Your task to perform on an android device: Go to eBay Image 0: 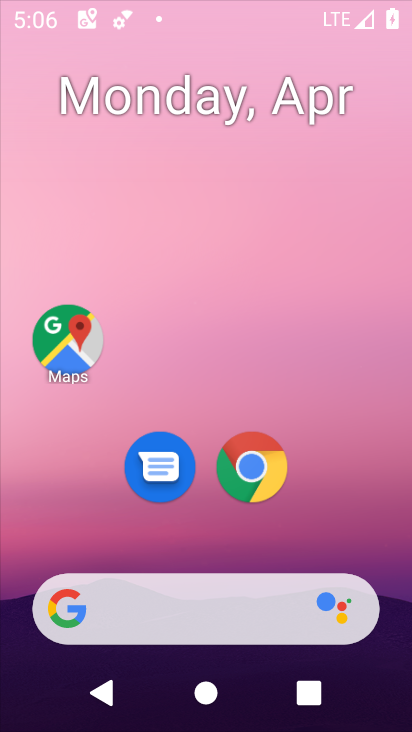
Step 0: click (280, 2)
Your task to perform on an android device: Go to eBay Image 1: 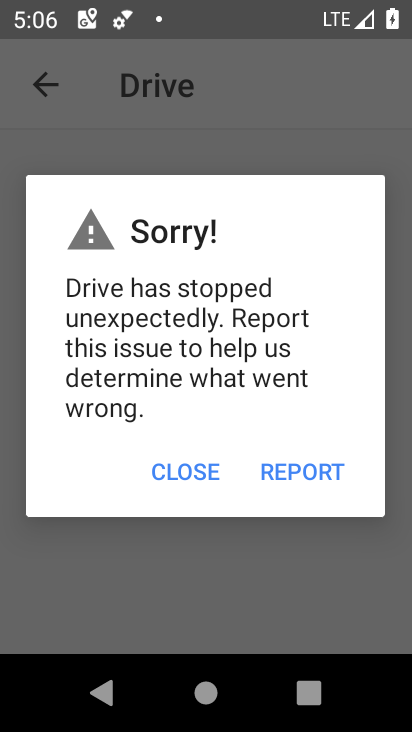
Step 1: press home button
Your task to perform on an android device: Go to eBay Image 2: 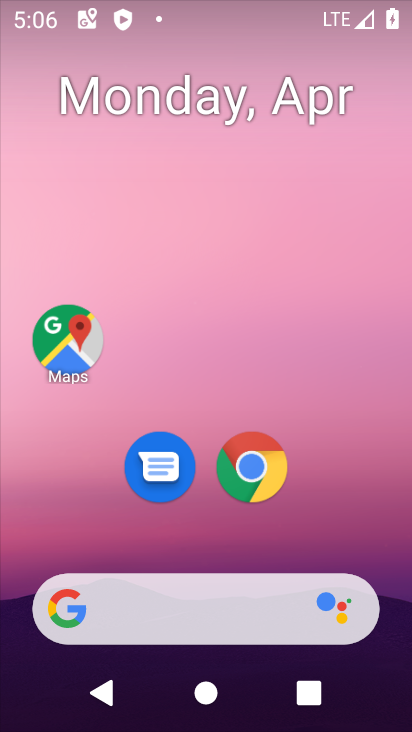
Step 2: drag from (178, 607) to (166, 65)
Your task to perform on an android device: Go to eBay Image 3: 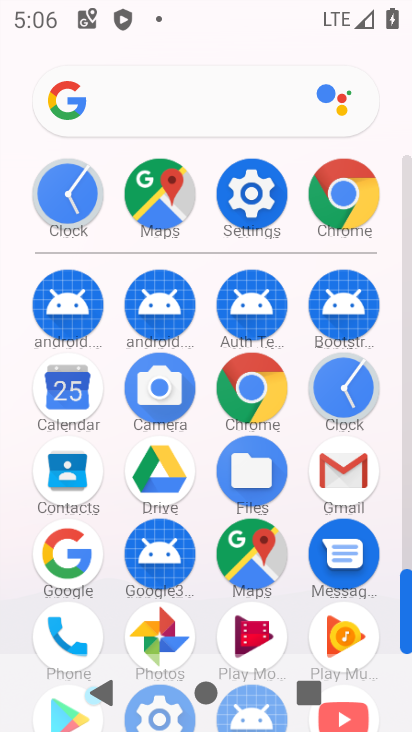
Step 3: click (265, 402)
Your task to perform on an android device: Go to eBay Image 4: 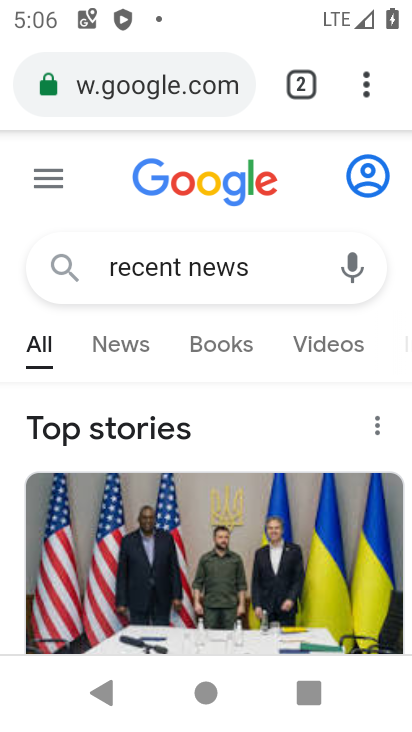
Step 4: click (235, 86)
Your task to perform on an android device: Go to eBay Image 5: 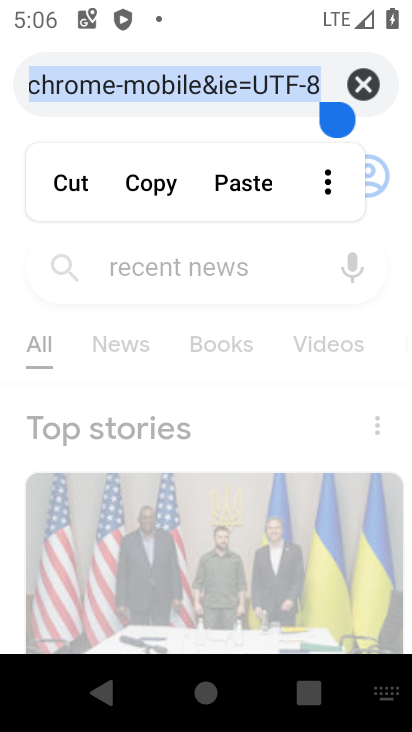
Step 5: click (359, 85)
Your task to perform on an android device: Go to eBay Image 6: 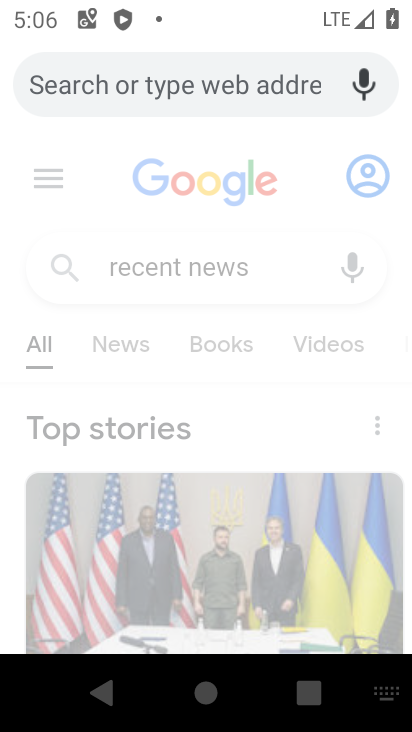
Step 6: type "ebay"
Your task to perform on an android device: Go to eBay Image 7: 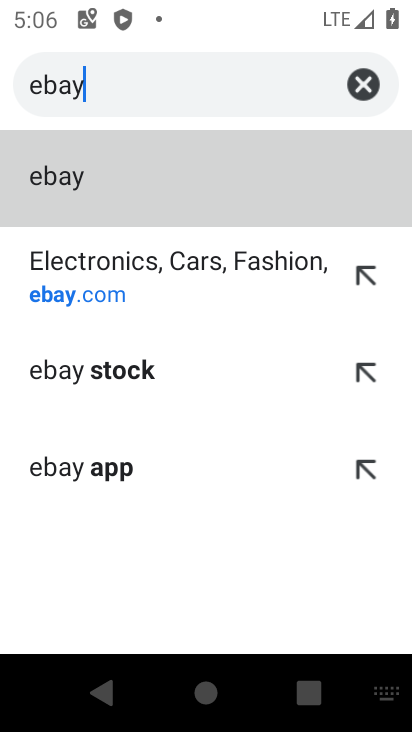
Step 7: click (195, 181)
Your task to perform on an android device: Go to eBay Image 8: 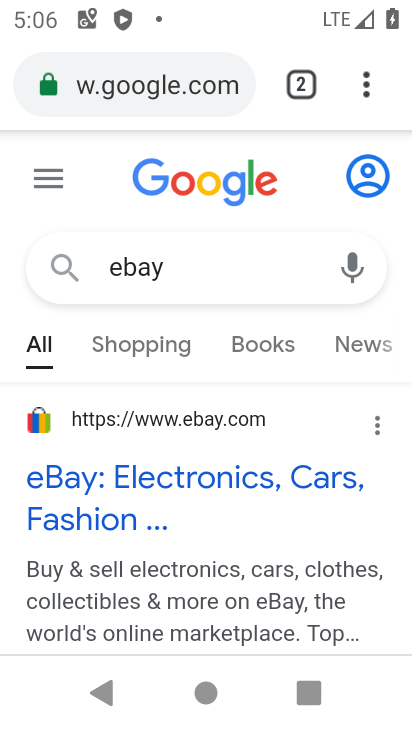
Step 8: task complete